Your task to perform on an android device: Open display settings Image 0: 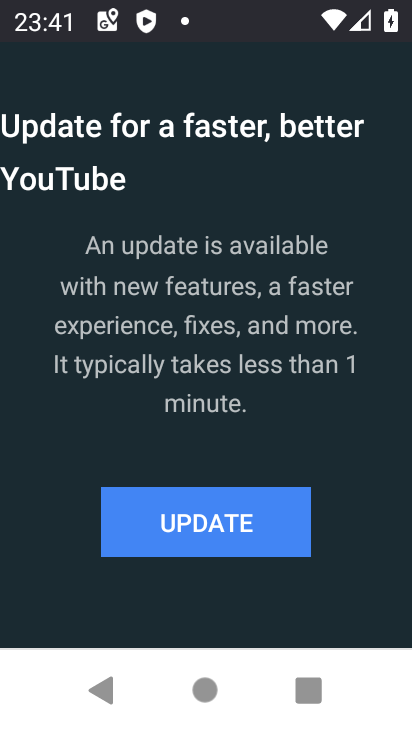
Step 0: press home button
Your task to perform on an android device: Open display settings Image 1: 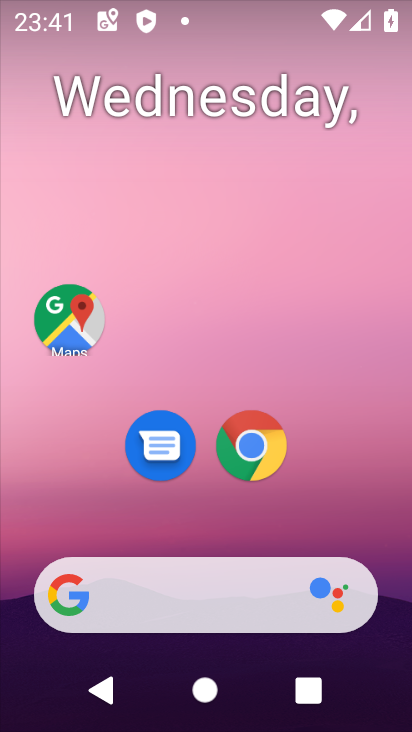
Step 1: drag from (304, 491) to (331, 180)
Your task to perform on an android device: Open display settings Image 2: 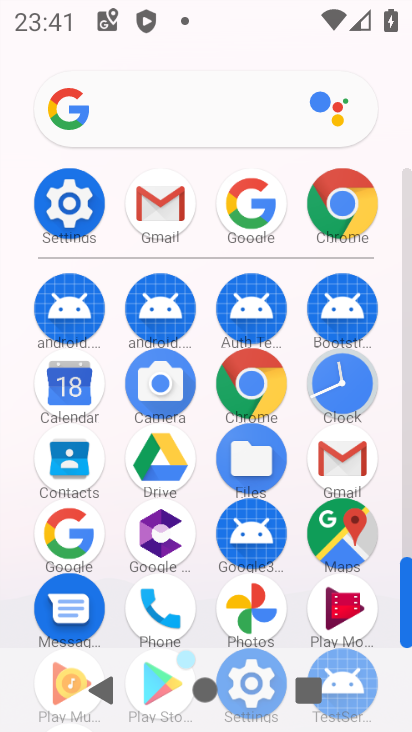
Step 2: click (75, 201)
Your task to perform on an android device: Open display settings Image 3: 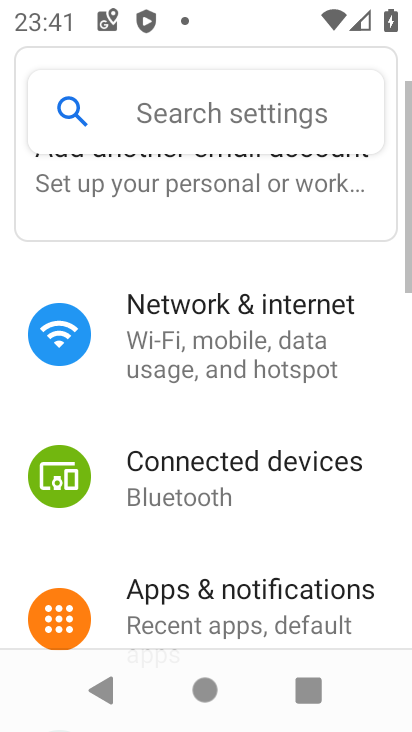
Step 3: drag from (207, 574) to (277, 181)
Your task to perform on an android device: Open display settings Image 4: 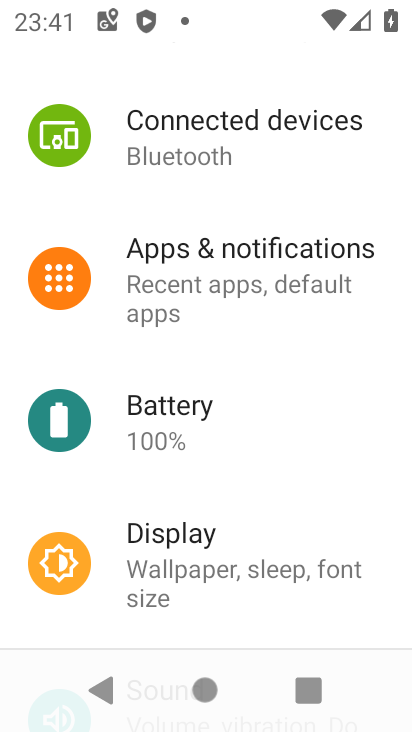
Step 4: click (171, 566)
Your task to perform on an android device: Open display settings Image 5: 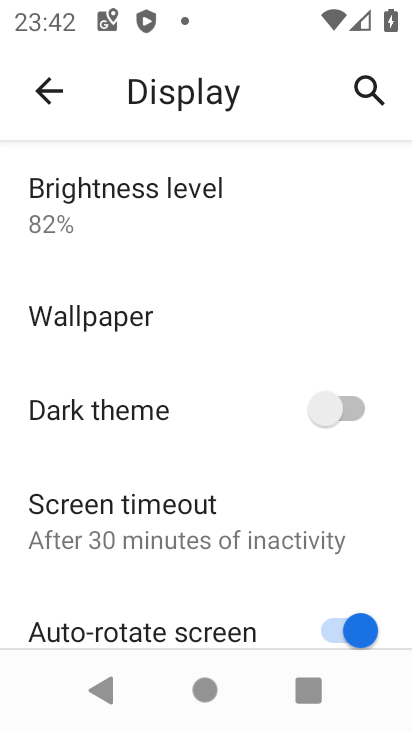
Step 5: task complete